Your task to perform on an android device: Open network settings Image 0: 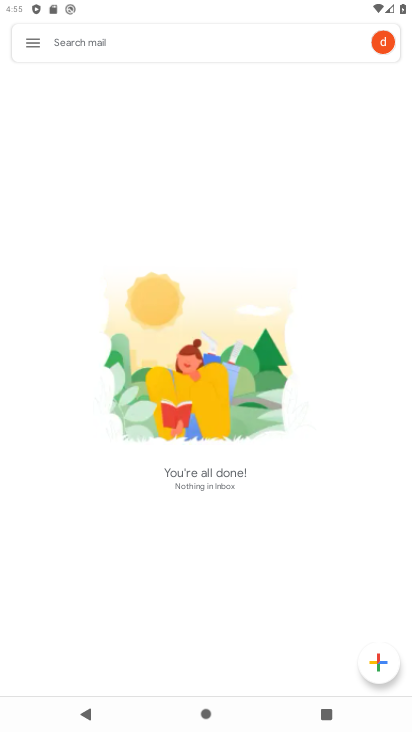
Step 0: press home button
Your task to perform on an android device: Open network settings Image 1: 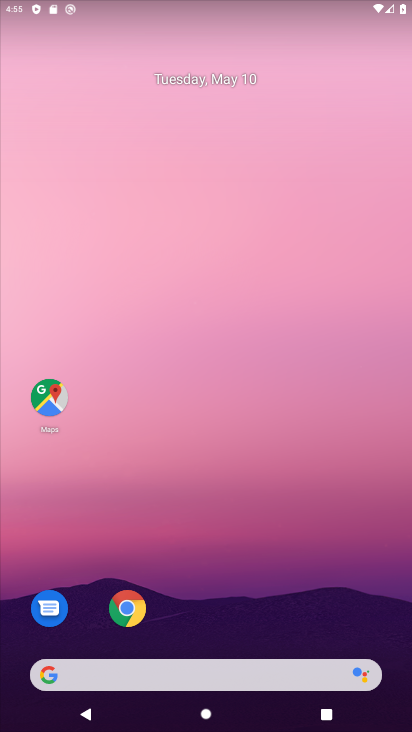
Step 1: drag from (192, 621) to (311, 2)
Your task to perform on an android device: Open network settings Image 2: 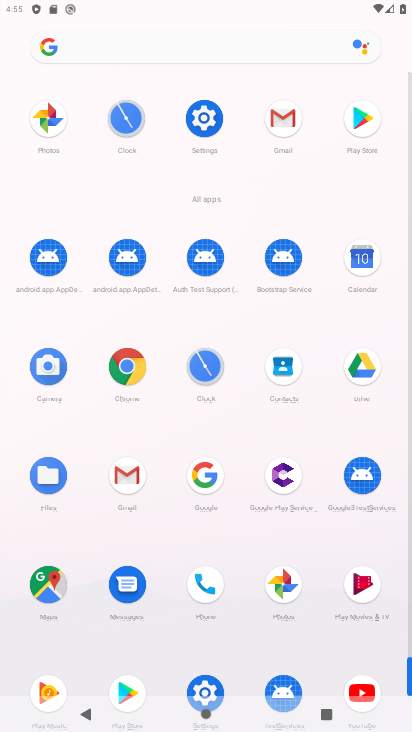
Step 2: click (210, 152)
Your task to perform on an android device: Open network settings Image 3: 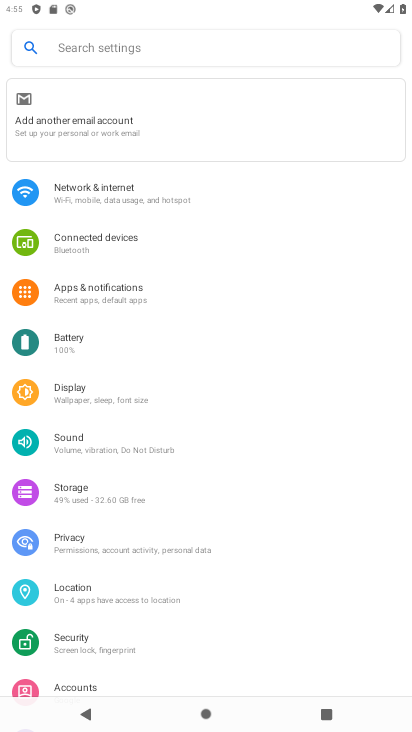
Step 3: click (140, 205)
Your task to perform on an android device: Open network settings Image 4: 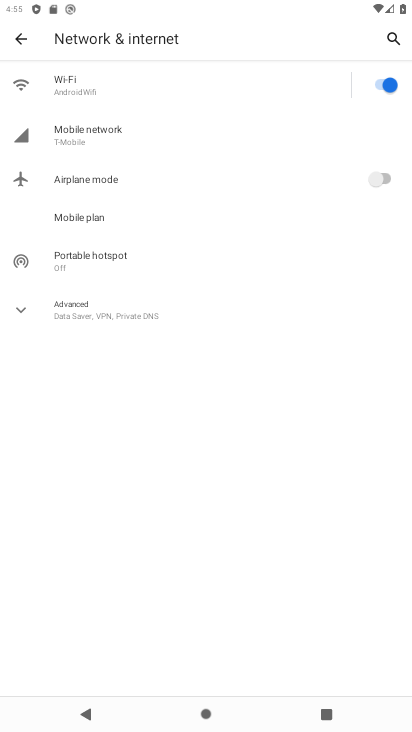
Step 4: task complete